Your task to perform on an android device: Go to internet settings Image 0: 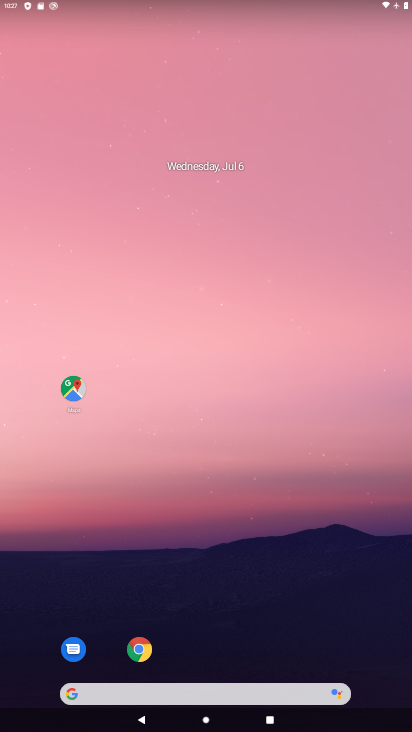
Step 0: drag from (404, 704) to (312, 170)
Your task to perform on an android device: Go to internet settings Image 1: 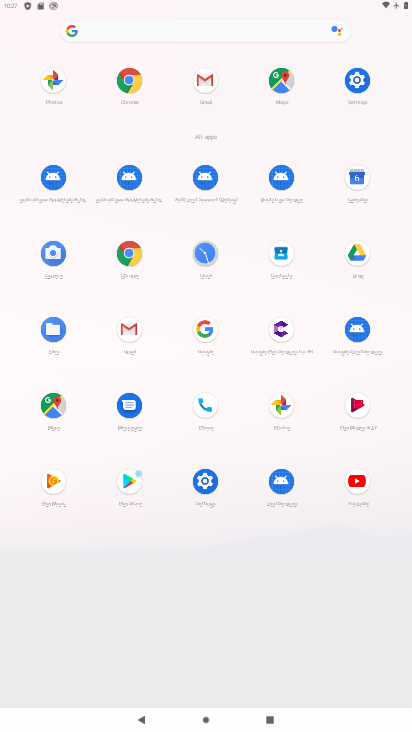
Step 1: click (367, 79)
Your task to perform on an android device: Go to internet settings Image 2: 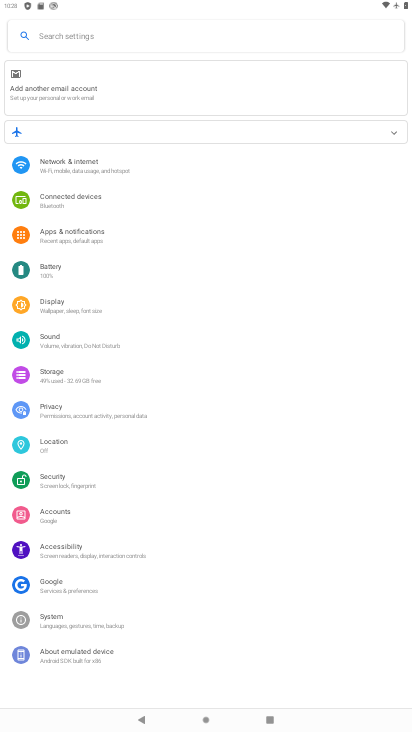
Step 2: click (197, 169)
Your task to perform on an android device: Go to internet settings Image 3: 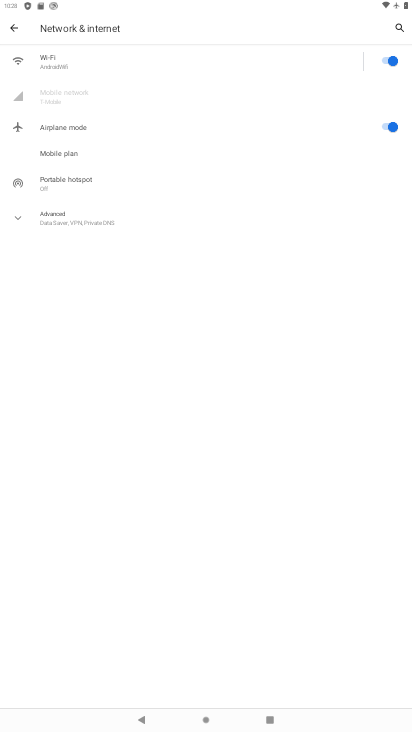
Step 3: click (57, 63)
Your task to perform on an android device: Go to internet settings Image 4: 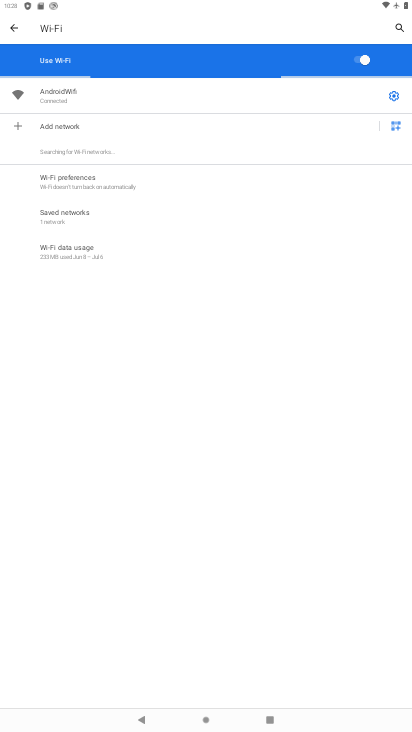
Step 4: click (12, 29)
Your task to perform on an android device: Go to internet settings Image 5: 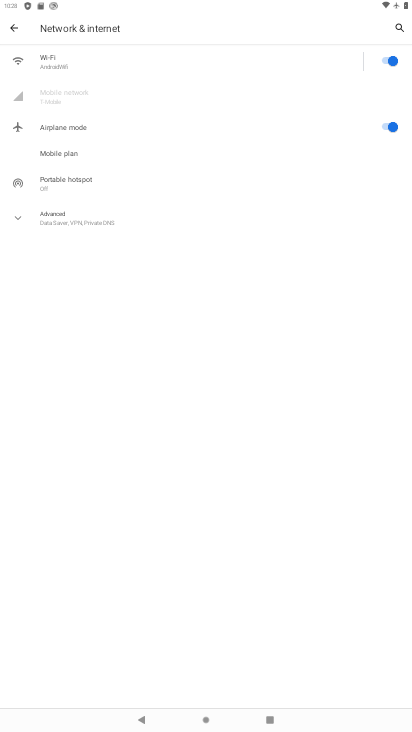
Step 5: click (23, 215)
Your task to perform on an android device: Go to internet settings Image 6: 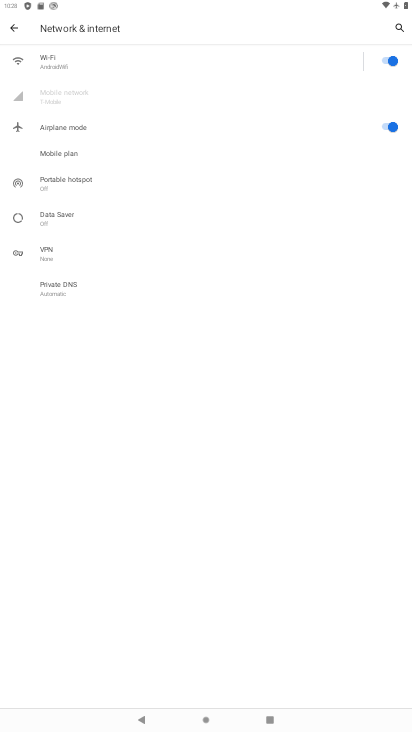
Step 6: task complete